Your task to perform on an android device: What is the news today? Image 0: 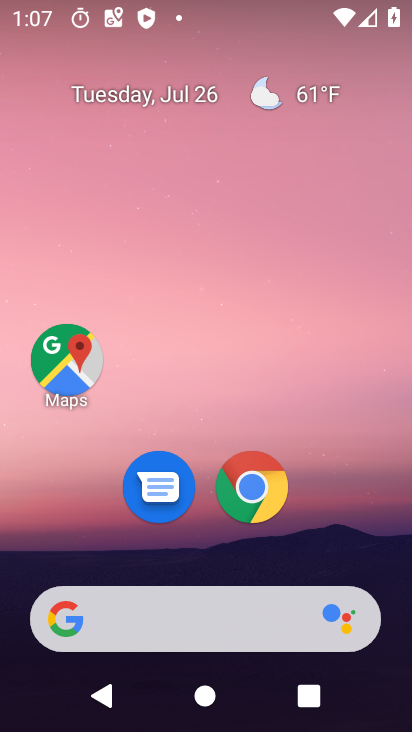
Step 0: click (189, 617)
Your task to perform on an android device: What is the news today? Image 1: 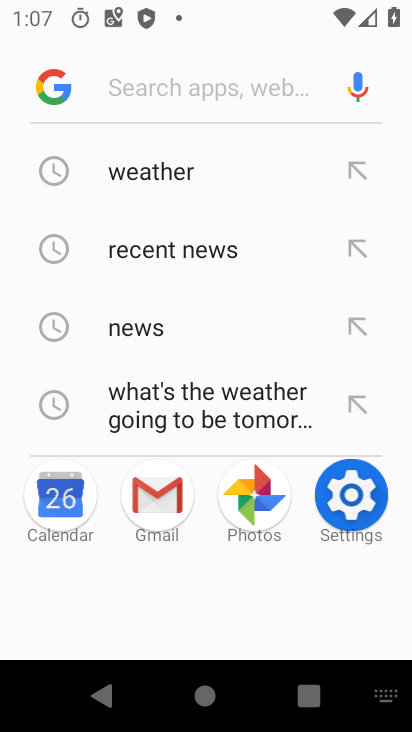
Step 1: click (165, 102)
Your task to perform on an android device: What is the news today? Image 2: 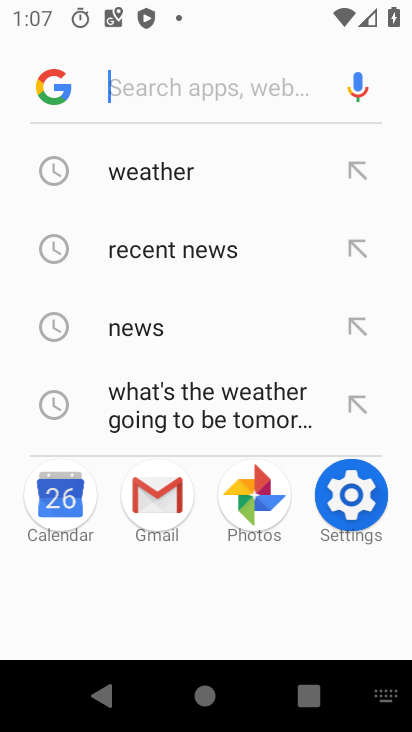
Step 2: type "news today"
Your task to perform on an android device: What is the news today? Image 3: 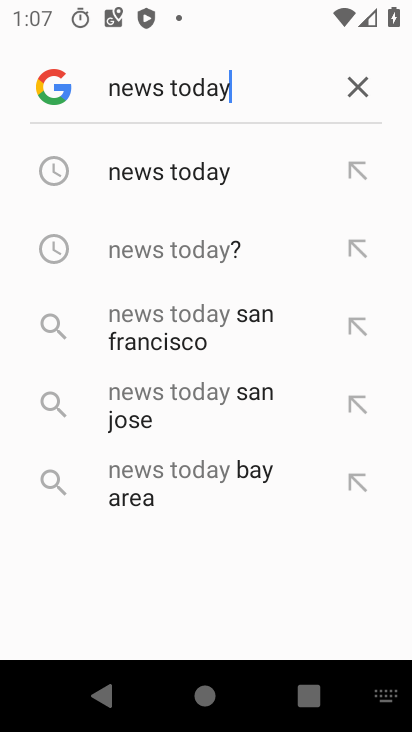
Step 3: click (177, 172)
Your task to perform on an android device: What is the news today? Image 4: 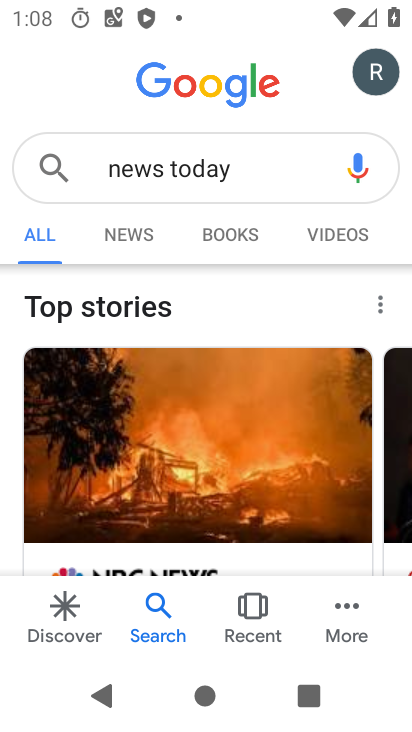
Step 4: task complete